Your task to perform on an android device: all mails in gmail Image 0: 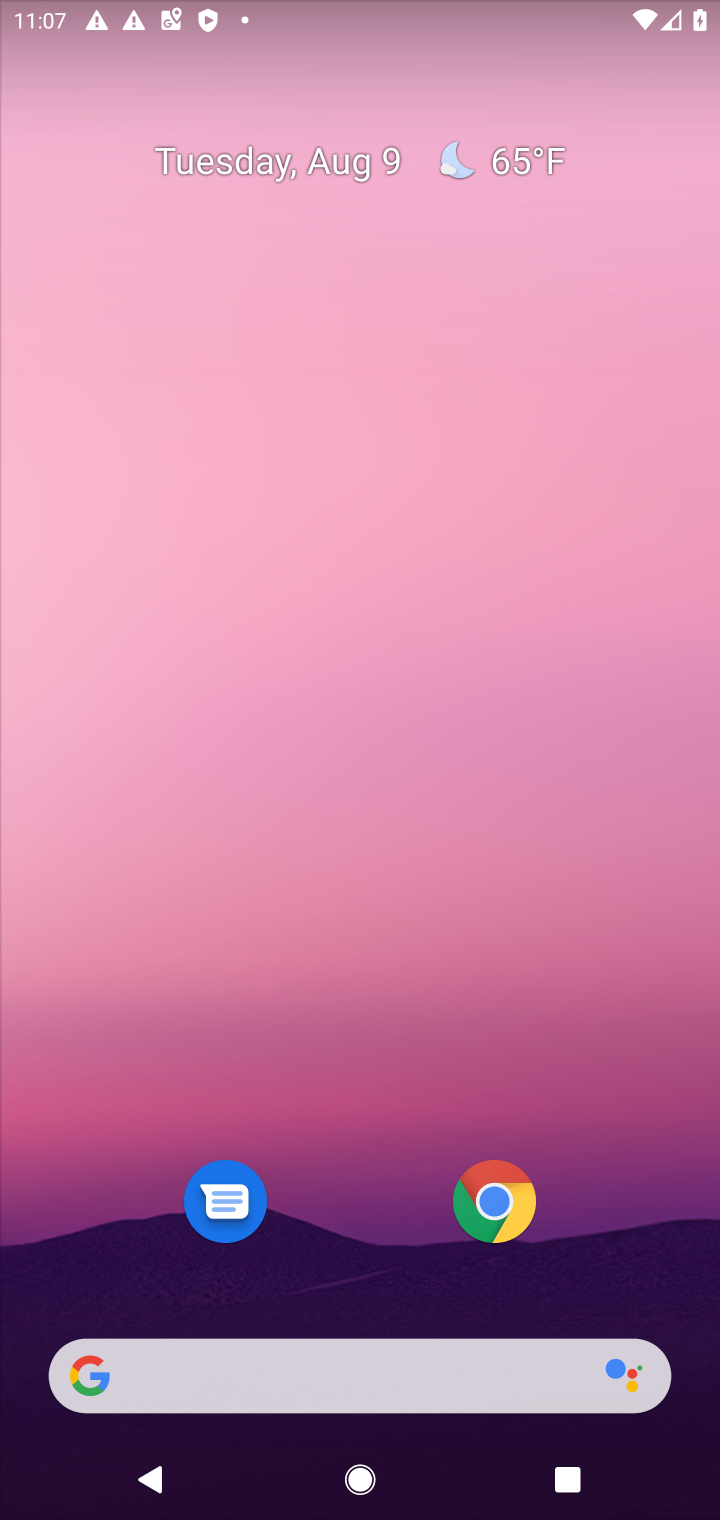
Step 0: press home button
Your task to perform on an android device: all mails in gmail Image 1: 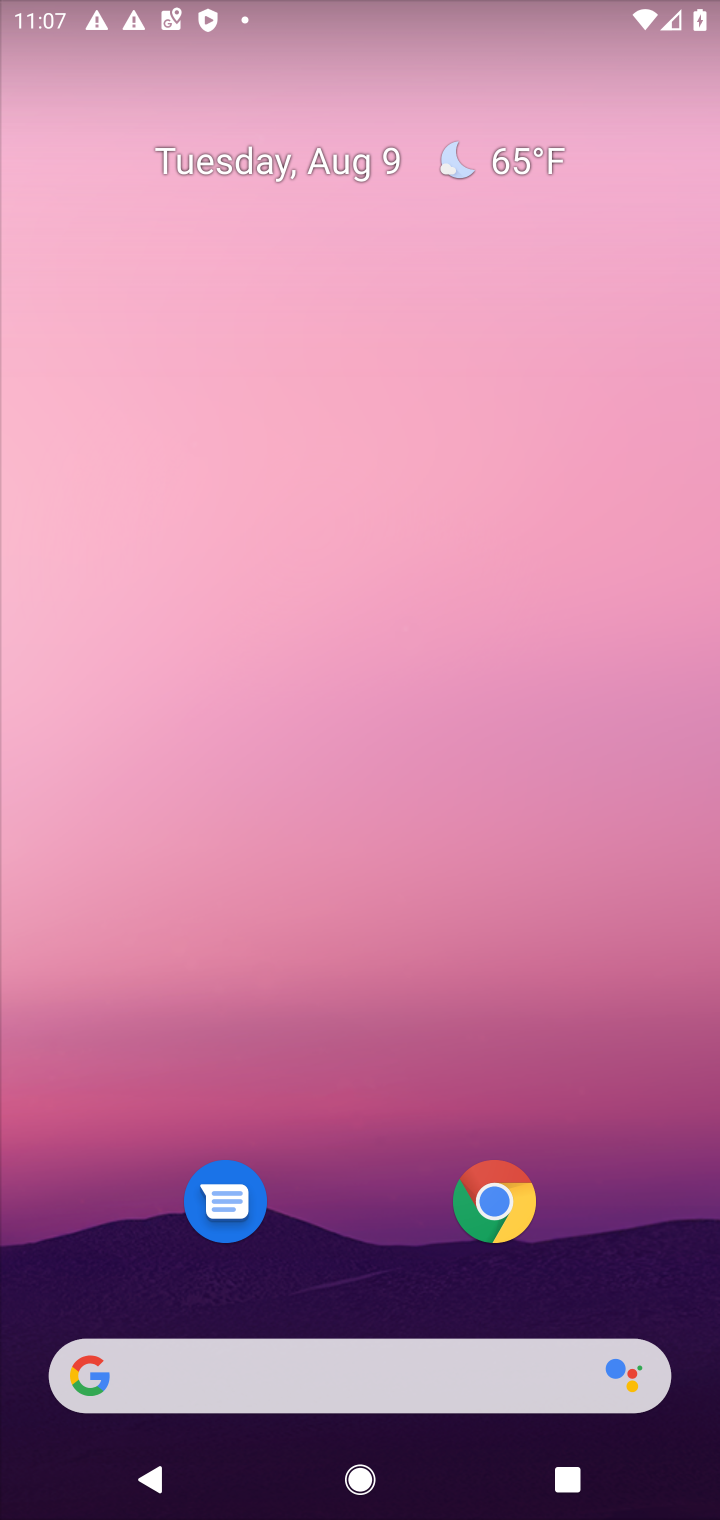
Step 1: drag from (407, 1092) to (569, 190)
Your task to perform on an android device: all mails in gmail Image 2: 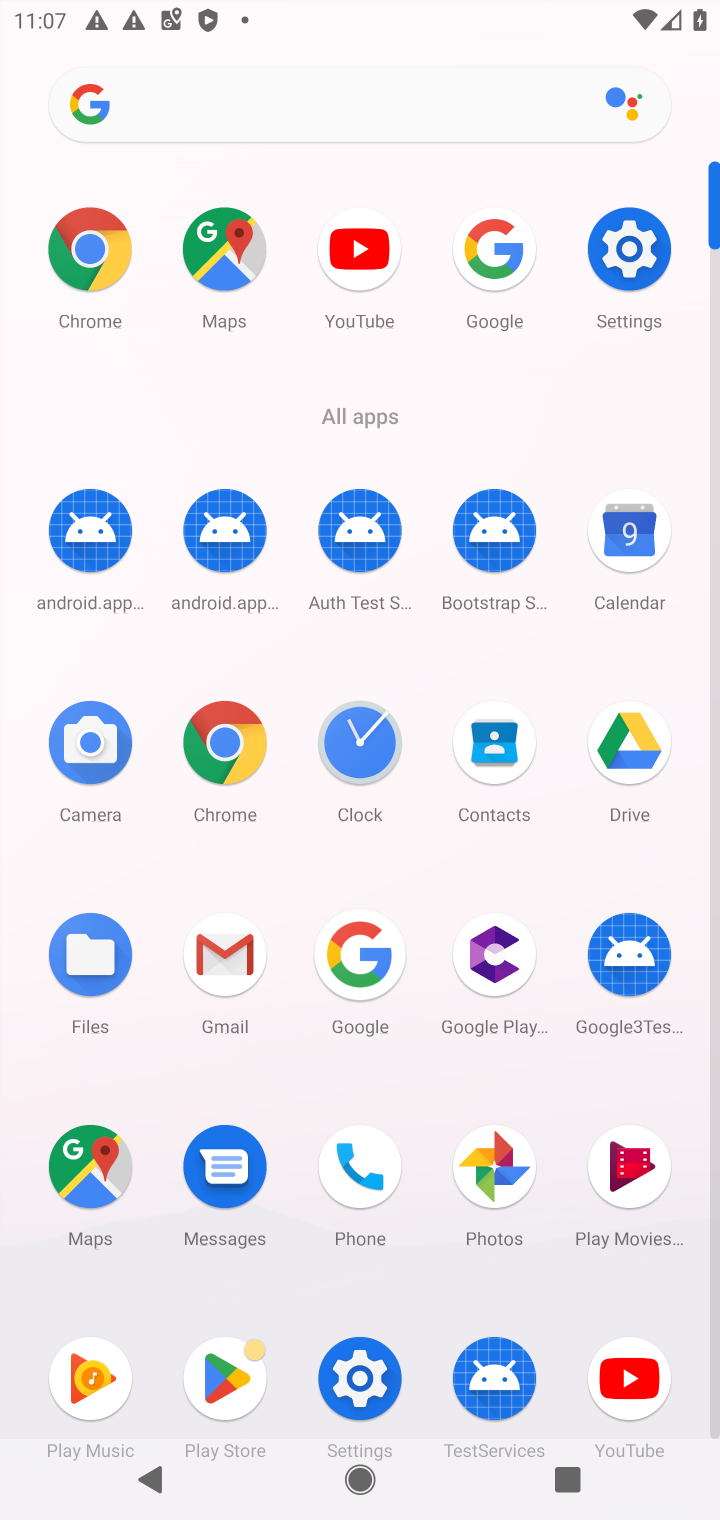
Step 2: click (195, 972)
Your task to perform on an android device: all mails in gmail Image 3: 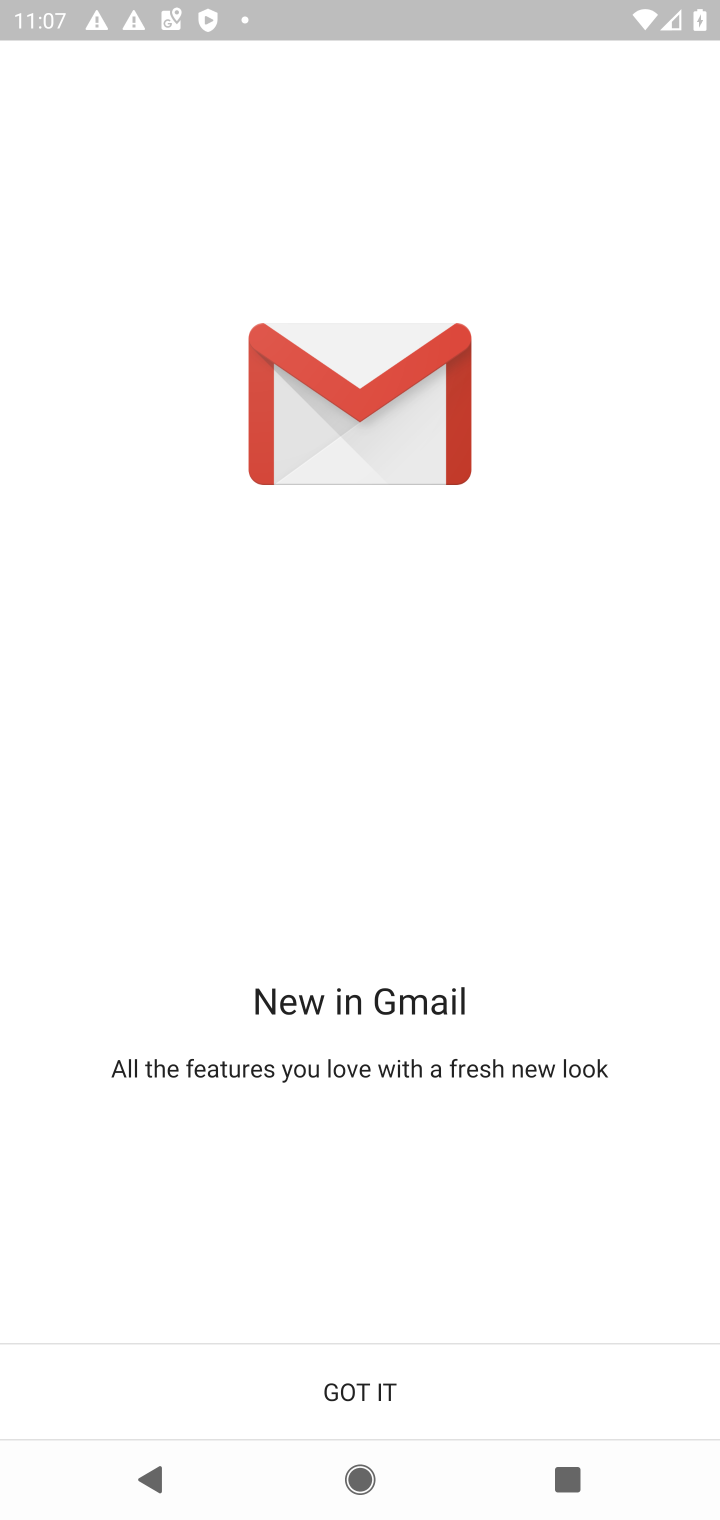
Step 3: click (387, 1393)
Your task to perform on an android device: all mails in gmail Image 4: 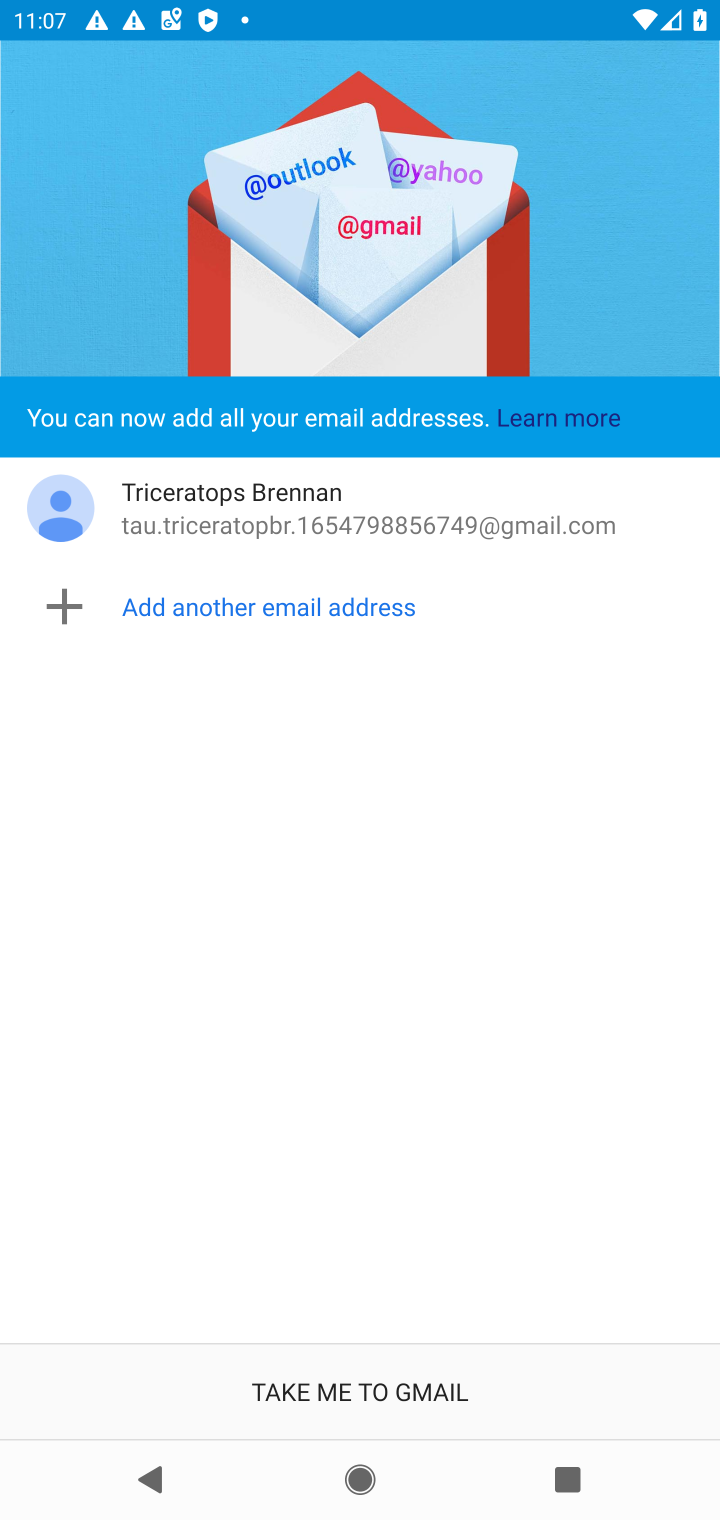
Step 4: click (387, 1393)
Your task to perform on an android device: all mails in gmail Image 5: 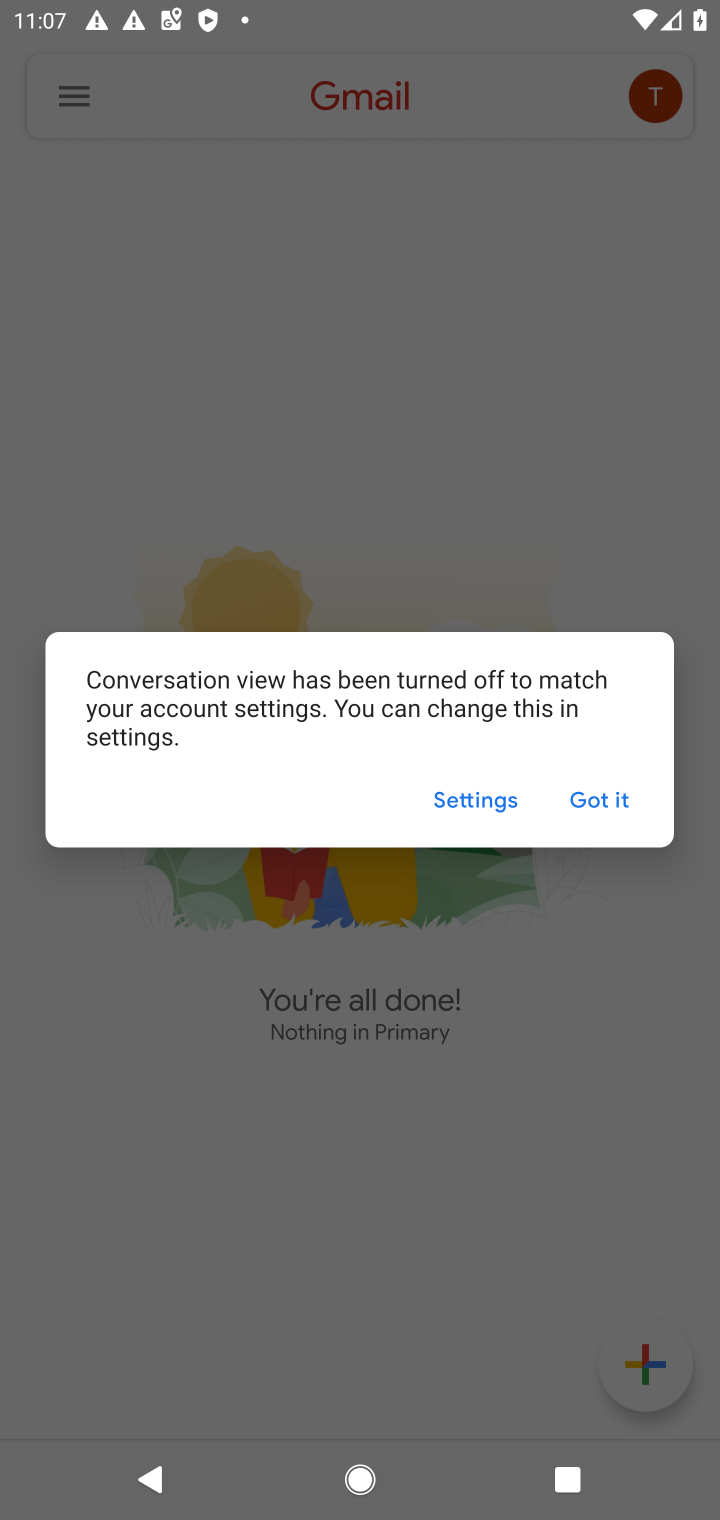
Step 5: click (592, 787)
Your task to perform on an android device: all mails in gmail Image 6: 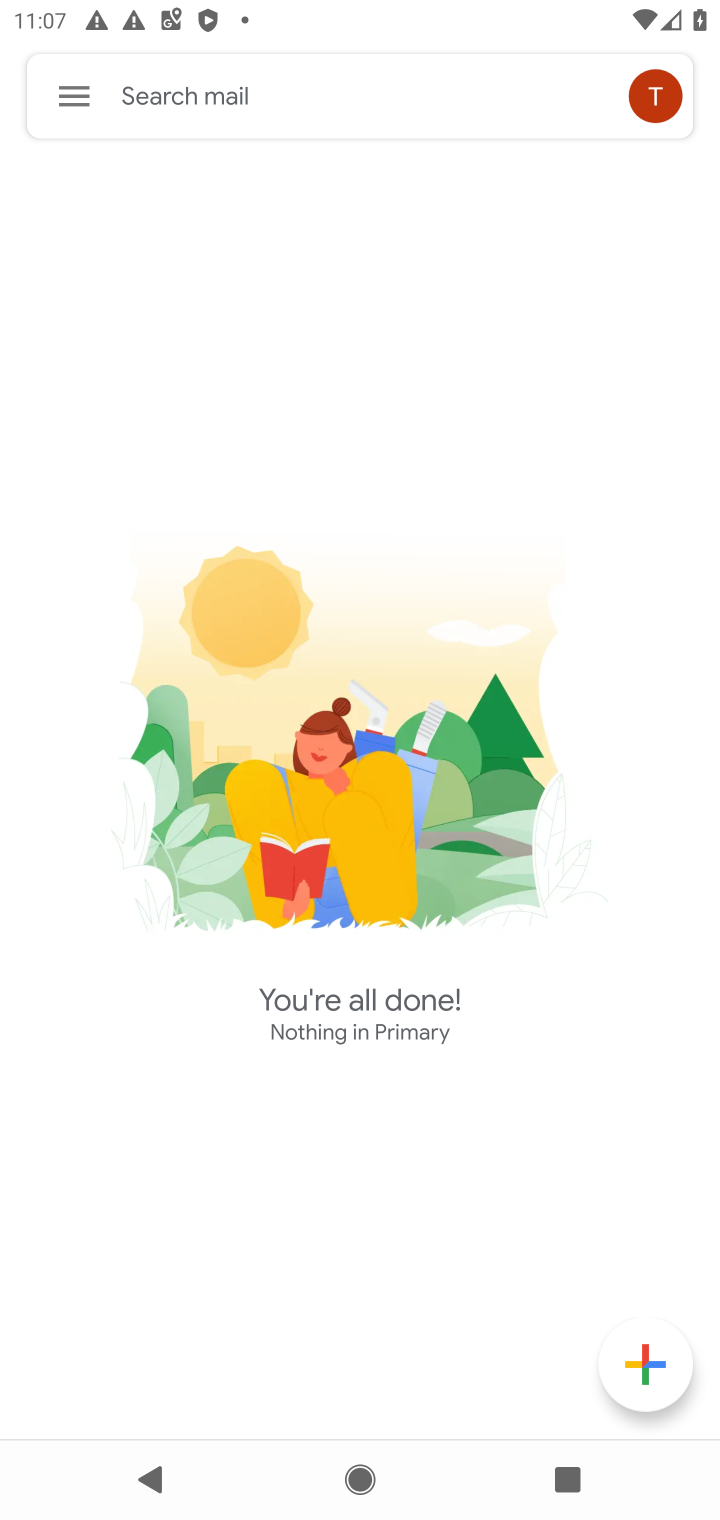
Step 6: click (74, 95)
Your task to perform on an android device: all mails in gmail Image 7: 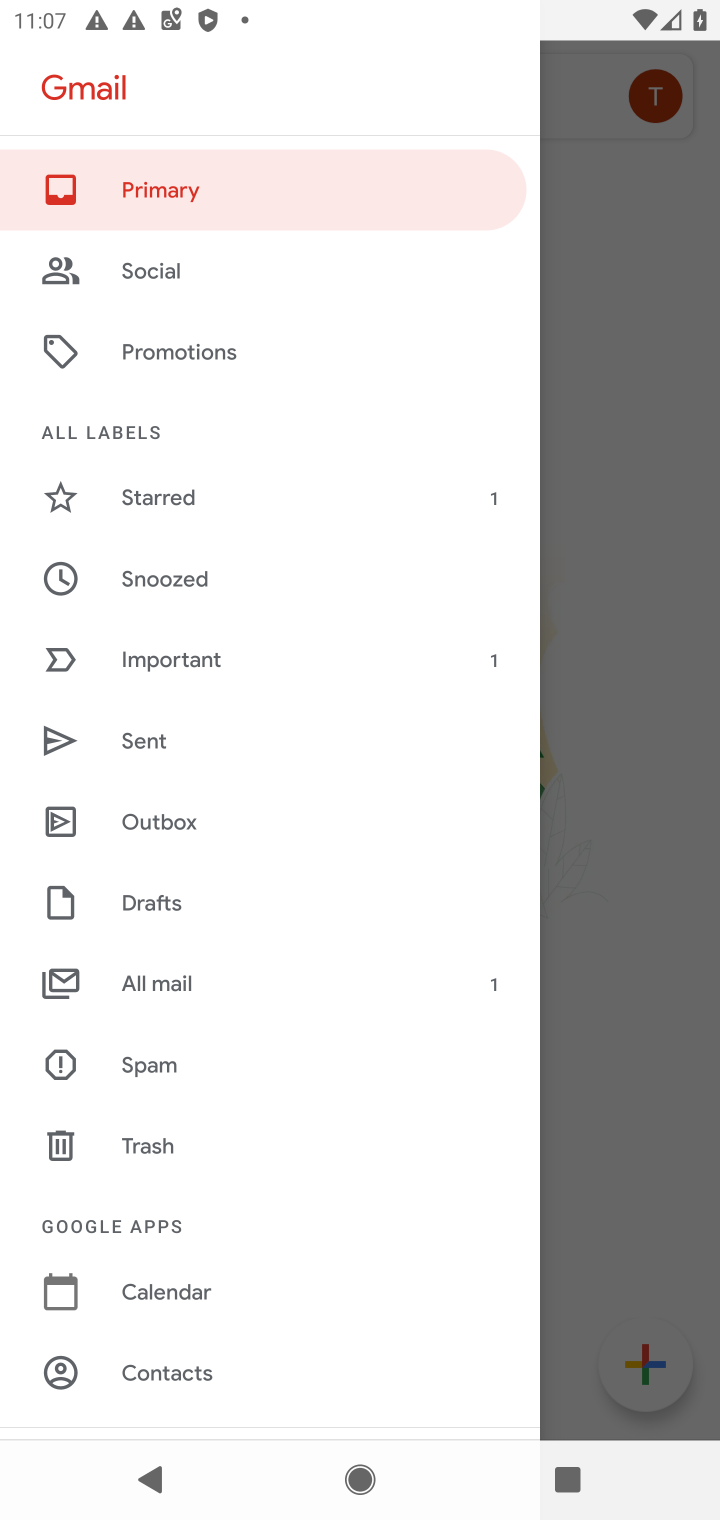
Step 7: click (134, 977)
Your task to perform on an android device: all mails in gmail Image 8: 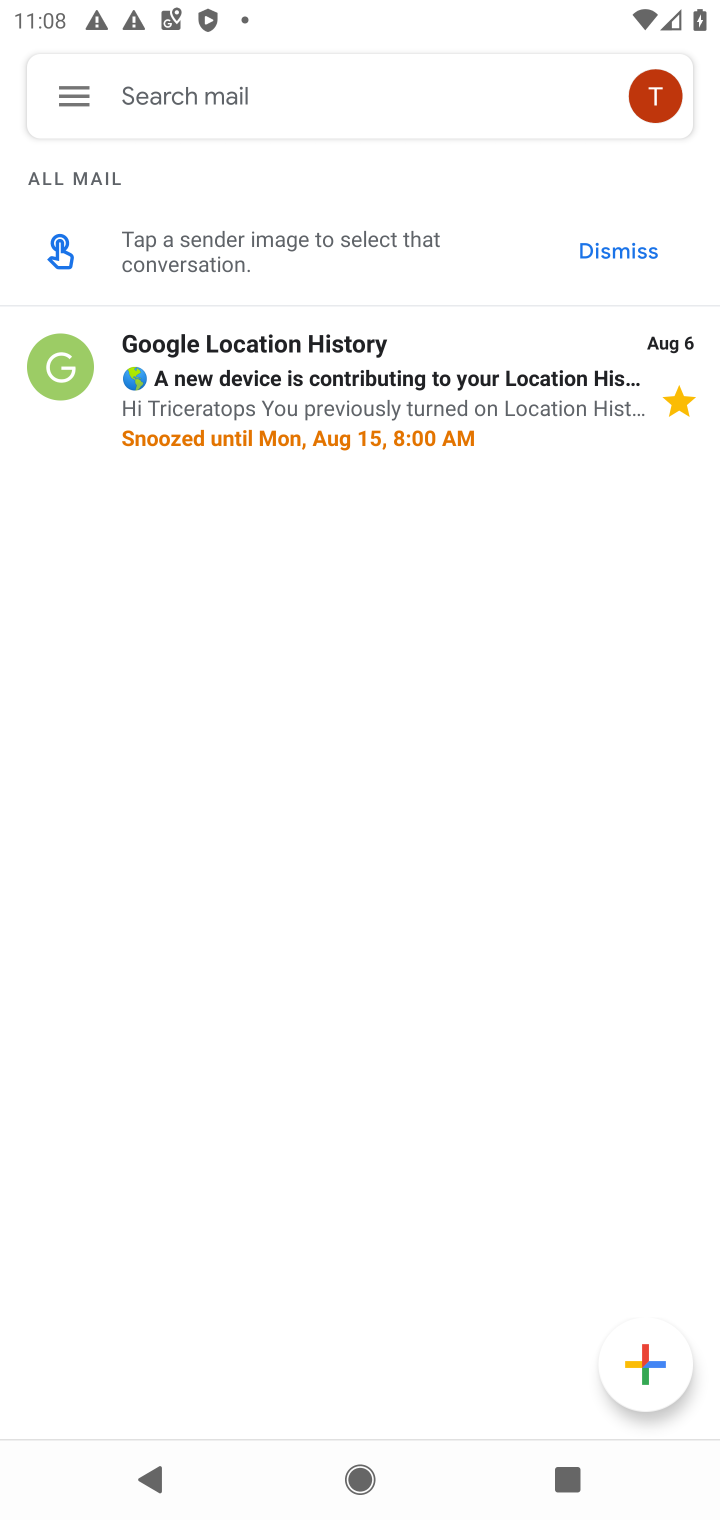
Step 8: task complete